Your task to perform on an android device: Go to Google maps Image 0: 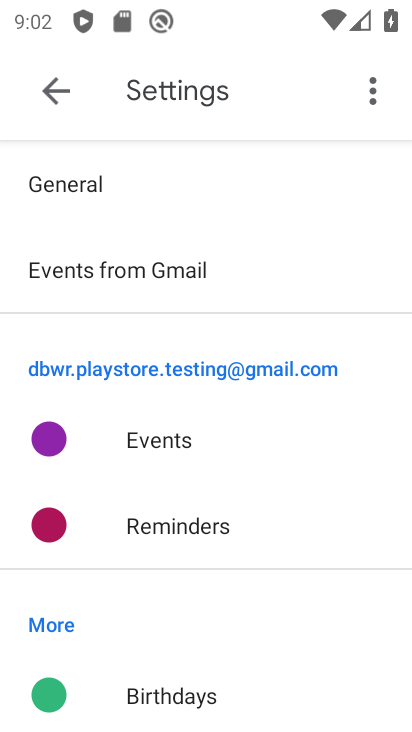
Step 0: press home button
Your task to perform on an android device: Go to Google maps Image 1: 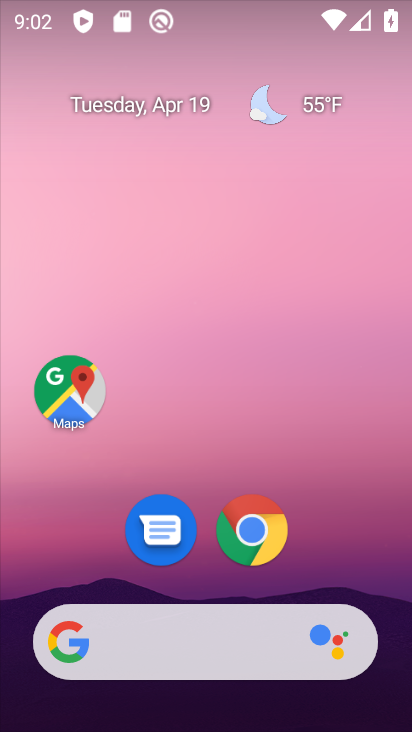
Step 1: click (68, 388)
Your task to perform on an android device: Go to Google maps Image 2: 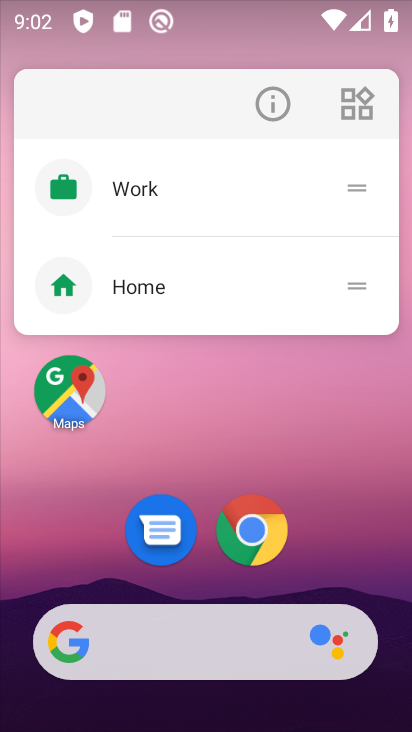
Step 2: click (247, 435)
Your task to perform on an android device: Go to Google maps Image 3: 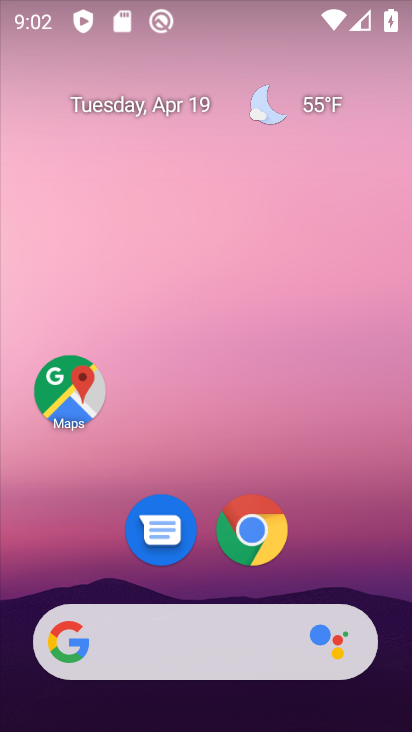
Step 3: click (61, 394)
Your task to perform on an android device: Go to Google maps Image 4: 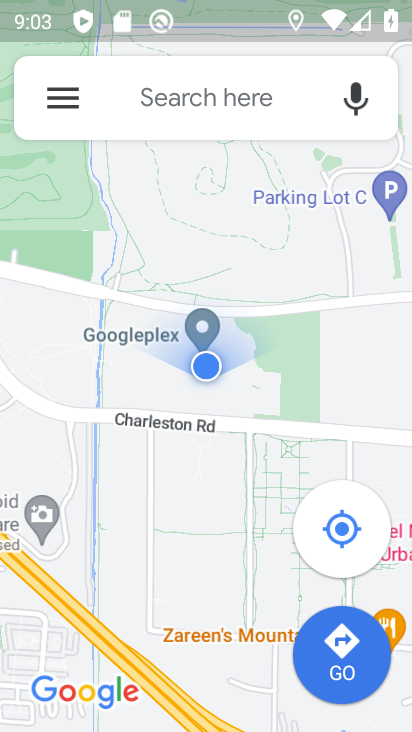
Step 4: task complete